Your task to perform on an android device: choose inbox layout in the gmail app Image 0: 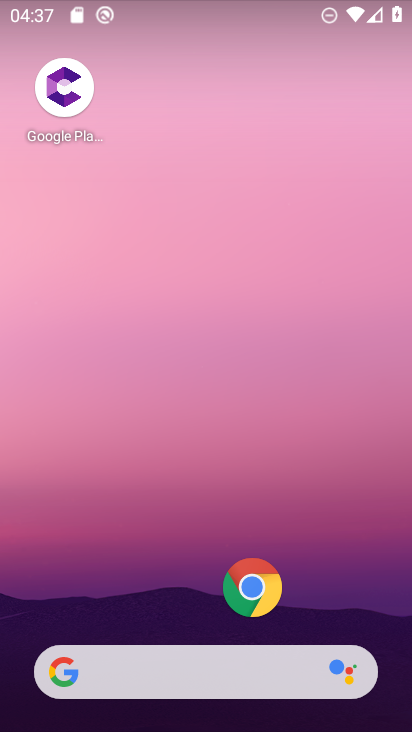
Step 0: drag from (188, 551) to (197, 130)
Your task to perform on an android device: choose inbox layout in the gmail app Image 1: 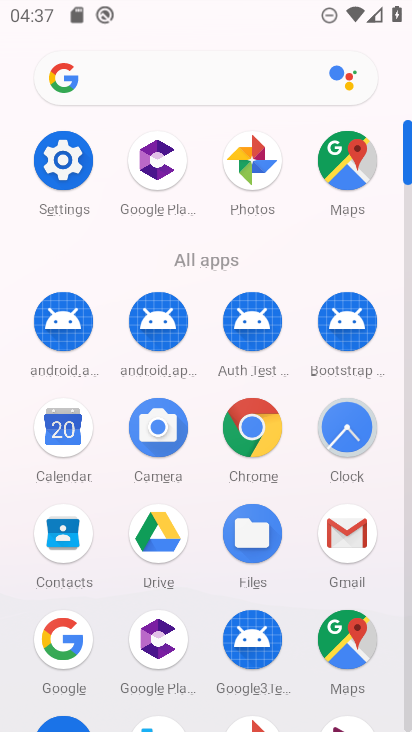
Step 1: click (340, 521)
Your task to perform on an android device: choose inbox layout in the gmail app Image 2: 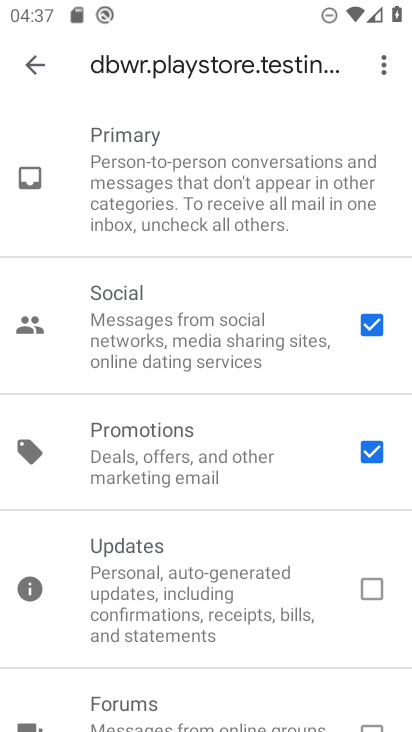
Step 2: click (50, 62)
Your task to perform on an android device: choose inbox layout in the gmail app Image 3: 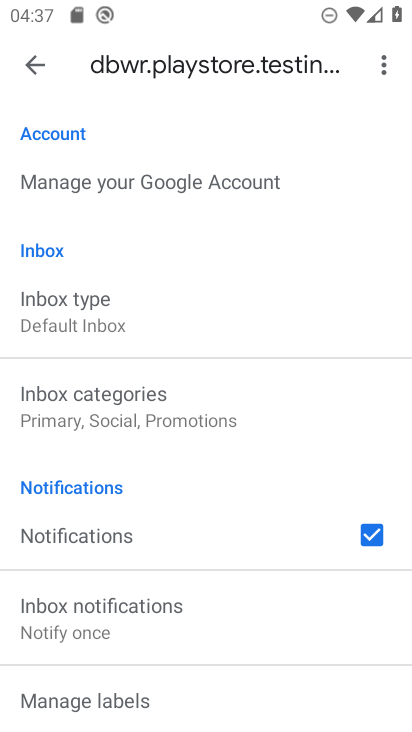
Step 3: click (139, 315)
Your task to perform on an android device: choose inbox layout in the gmail app Image 4: 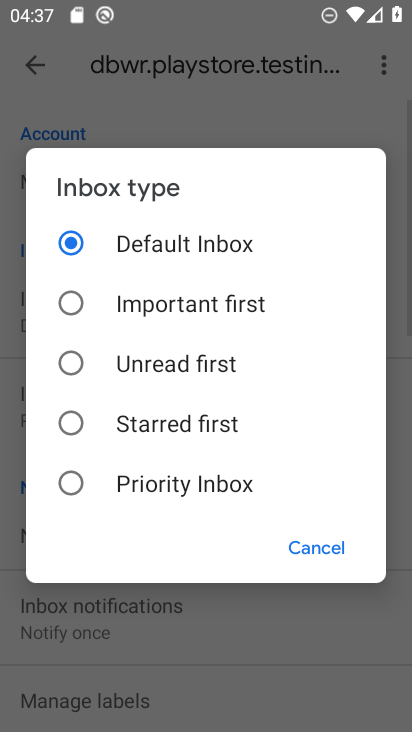
Step 4: click (171, 473)
Your task to perform on an android device: choose inbox layout in the gmail app Image 5: 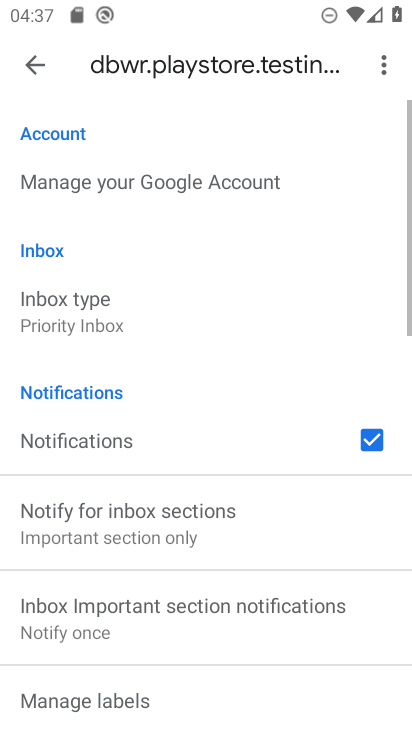
Step 5: task complete